Your task to perform on an android device: turn on sleep mode Image 0: 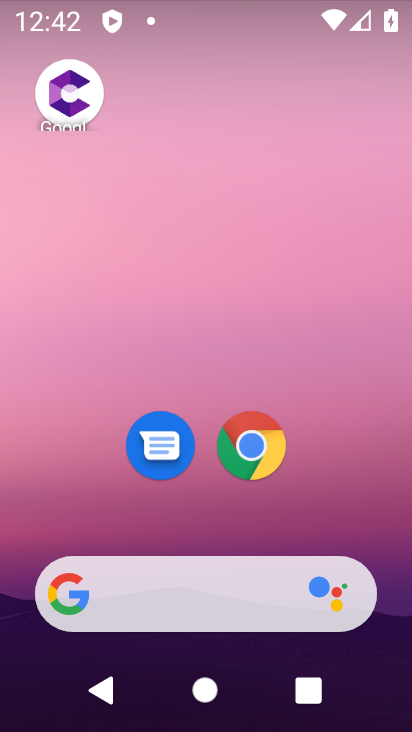
Step 0: drag from (195, 536) to (168, 0)
Your task to perform on an android device: turn on sleep mode Image 1: 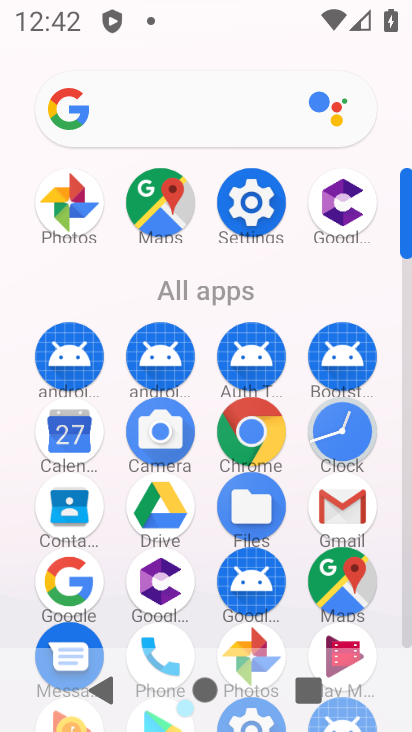
Step 1: click (250, 202)
Your task to perform on an android device: turn on sleep mode Image 2: 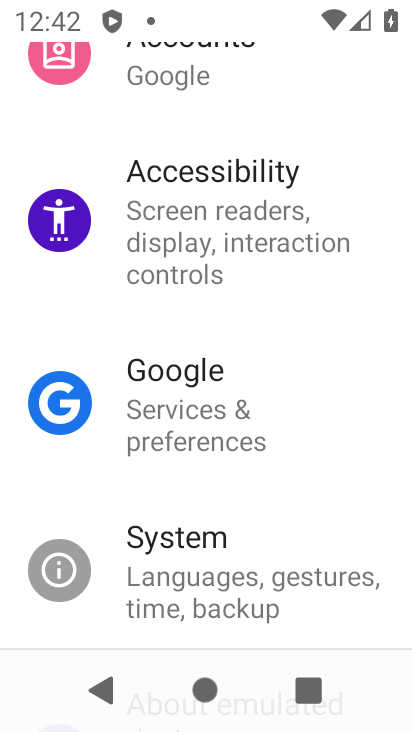
Step 2: task complete